Your task to perform on an android device: Open the web browser Image 0: 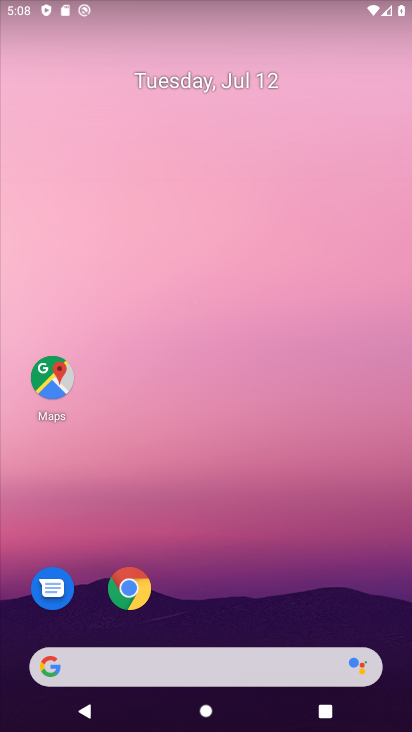
Step 0: drag from (254, 549) to (233, 24)
Your task to perform on an android device: Open the web browser Image 1: 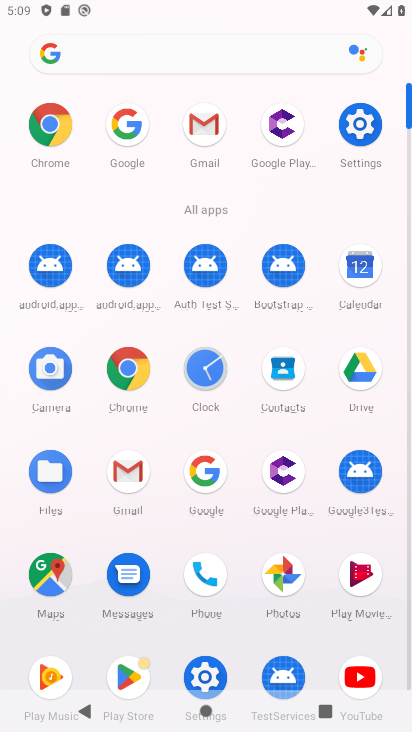
Step 1: click (49, 119)
Your task to perform on an android device: Open the web browser Image 2: 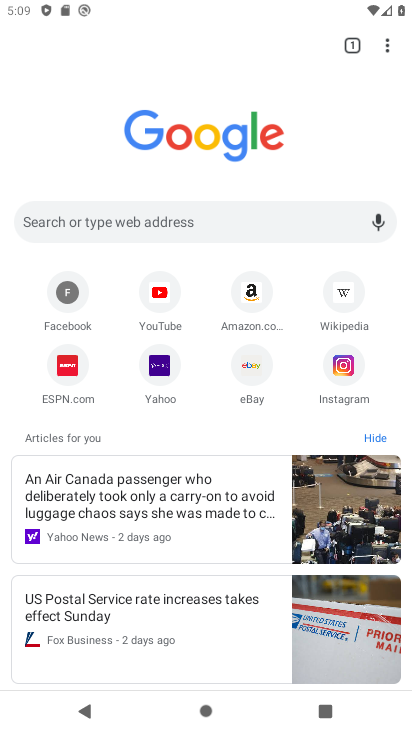
Step 2: task complete